Your task to perform on an android device: Check the weather Image 0: 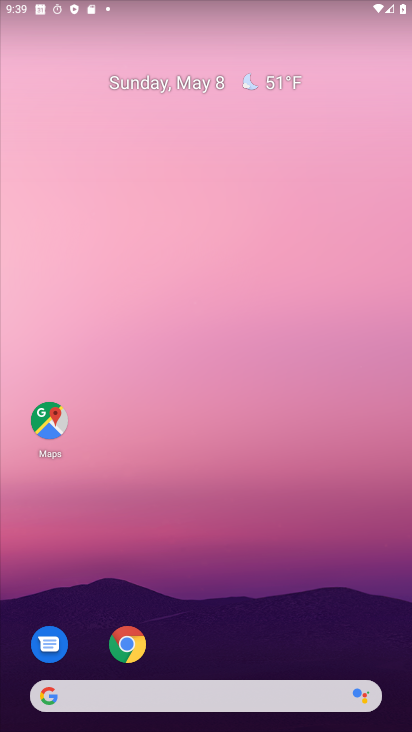
Step 0: click (265, 121)
Your task to perform on an android device: Check the weather Image 1: 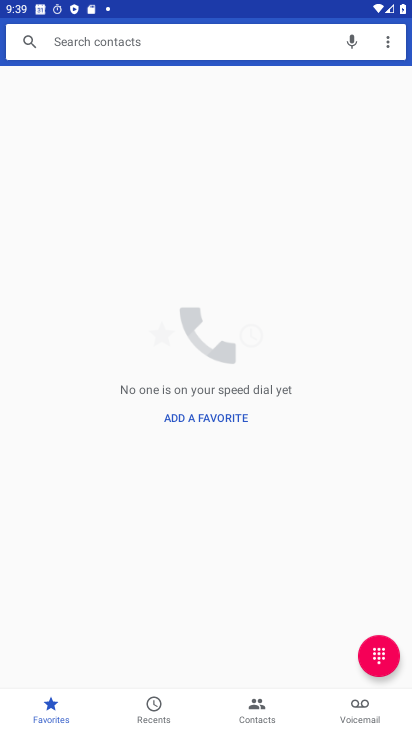
Step 1: press home button
Your task to perform on an android device: Check the weather Image 2: 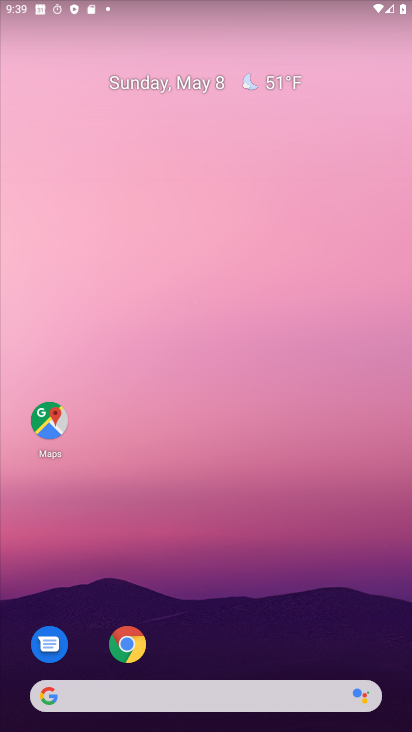
Step 2: drag from (197, 647) to (207, 185)
Your task to perform on an android device: Check the weather Image 3: 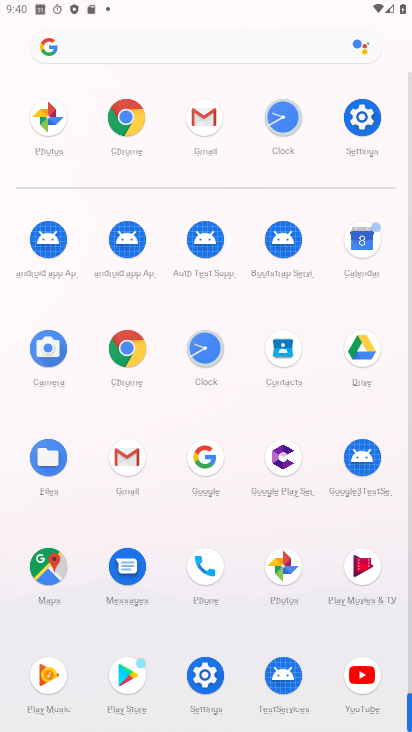
Step 3: drag from (250, 657) to (176, 214)
Your task to perform on an android device: Check the weather Image 4: 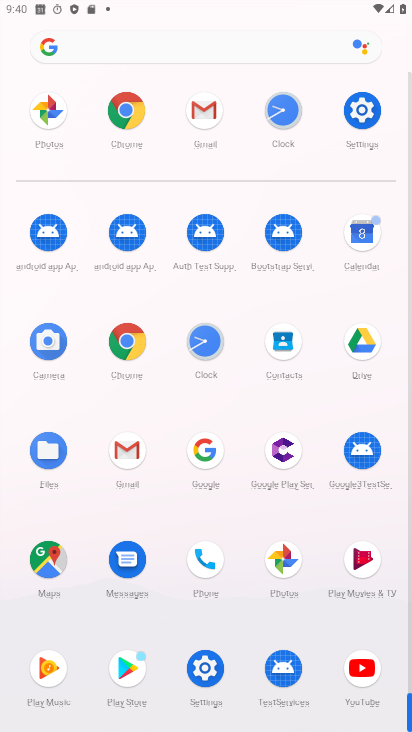
Step 4: click (255, 51)
Your task to perform on an android device: Check the weather Image 5: 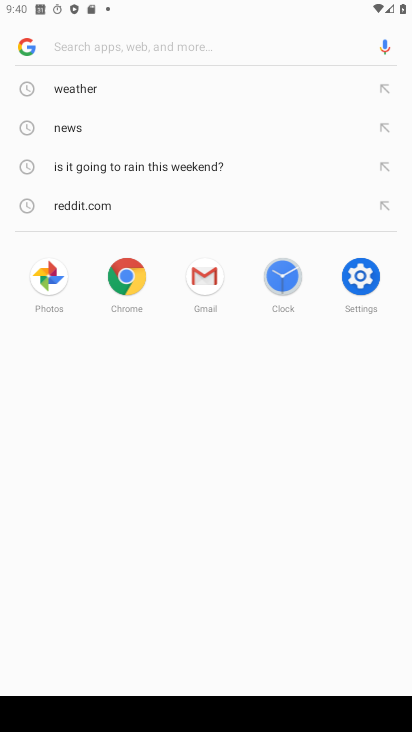
Step 5: click (105, 87)
Your task to perform on an android device: Check the weather Image 6: 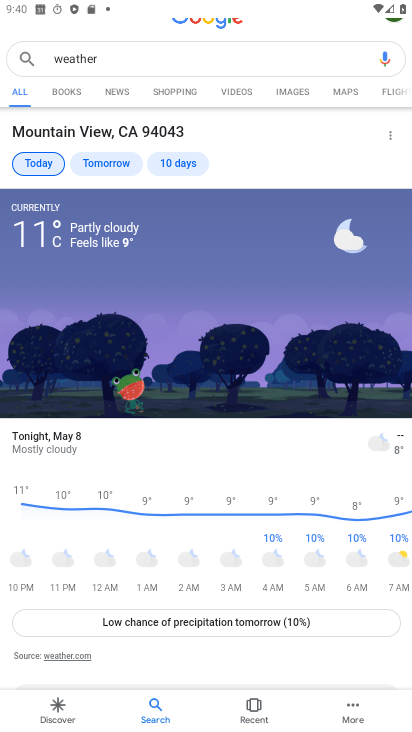
Step 6: task complete